Your task to perform on an android device: Open wifi settings Image 0: 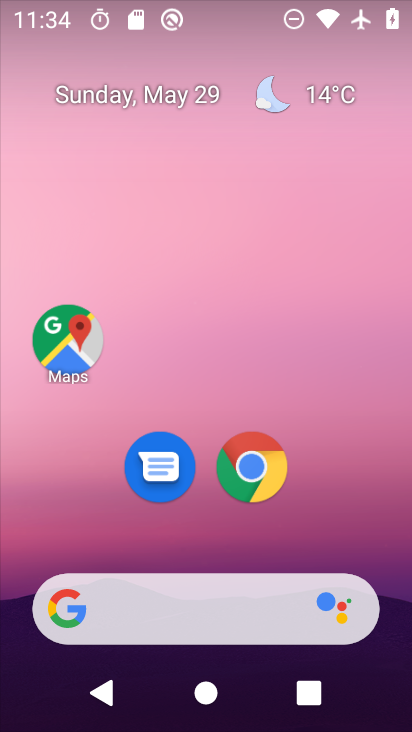
Step 0: drag from (227, 552) to (227, 158)
Your task to perform on an android device: Open wifi settings Image 1: 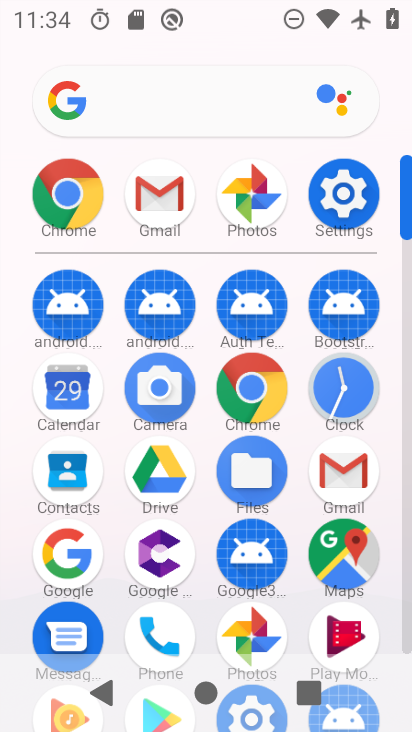
Step 1: click (357, 182)
Your task to perform on an android device: Open wifi settings Image 2: 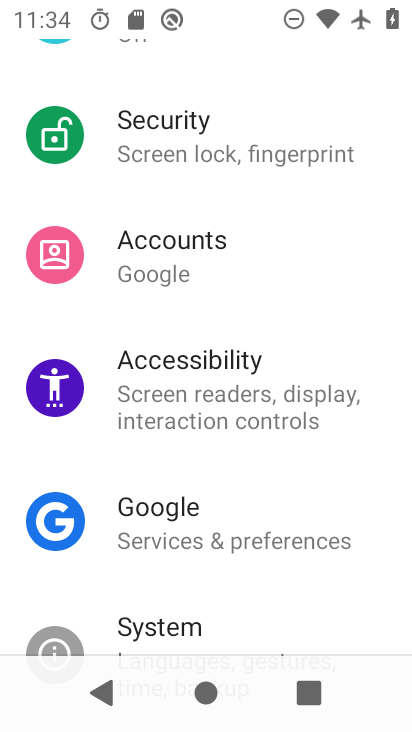
Step 2: drag from (226, 183) to (226, 416)
Your task to perform on an android device: Open wifi settings Image 3: 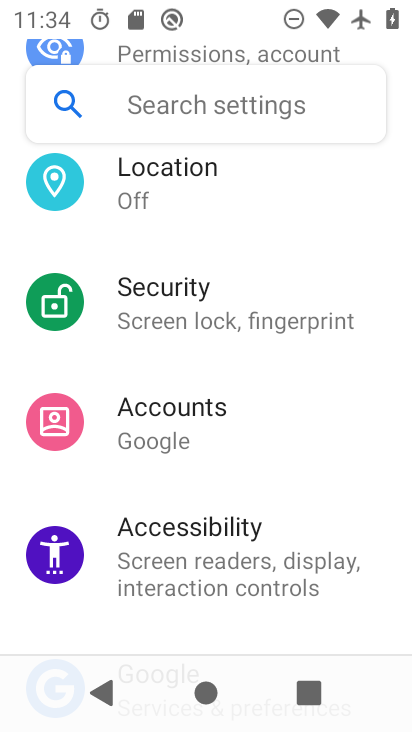
Step 3: drag from (229, 218) to (238, 505)
Your task to perform on an android device: Open wifi settings Image 4: 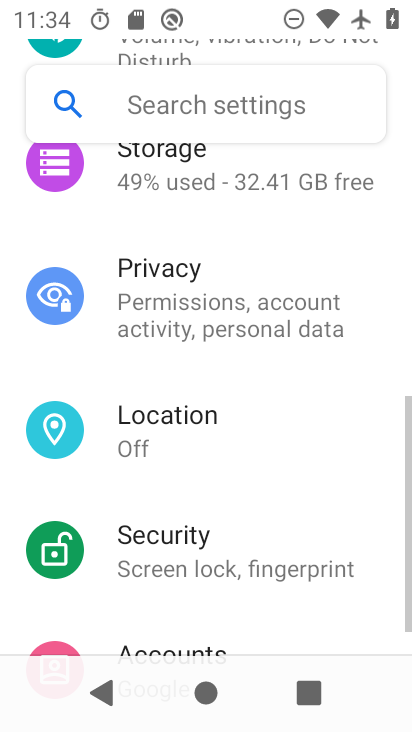
Step 4: drag from (228, 211) to (234, 459)
Your task to perform on an android device: Open wifi settings Image 5: 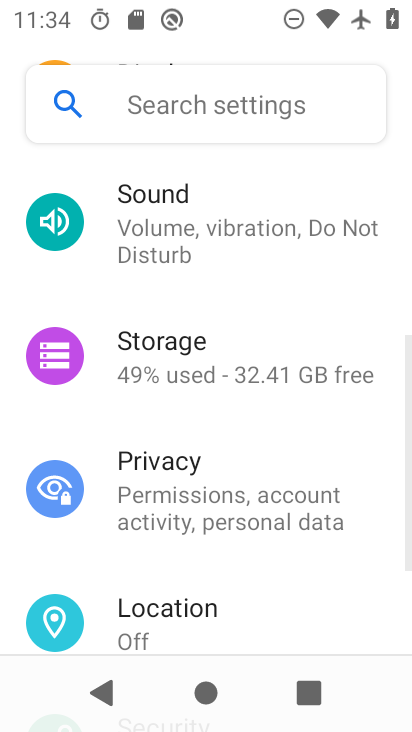
Step 5: drag from (225, 251) to (258, 504)
Your task to perform on an android device: Open wifi settings Image 6: 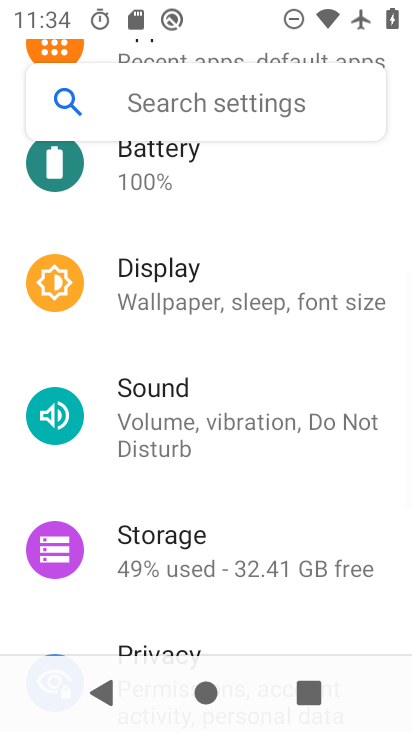
Step 6: drag from (257, 238) to (258, 461)
Your task to perform on an android device: Open wifi settings Image 7: 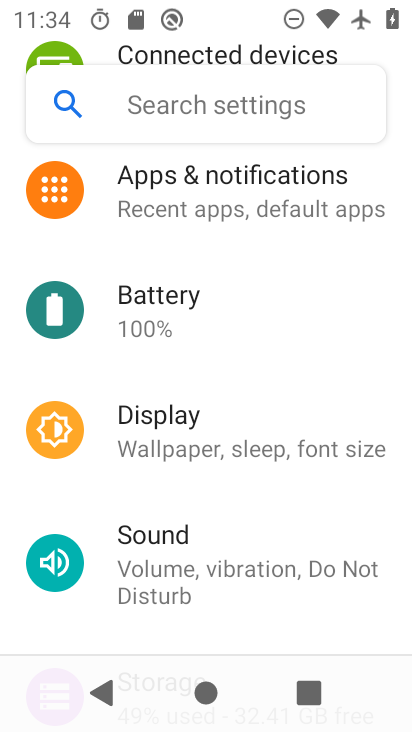
Step 7: drag from (239, 226) to (234, 472)
Your task to perform on an android device: Open wifi settings Image 8: 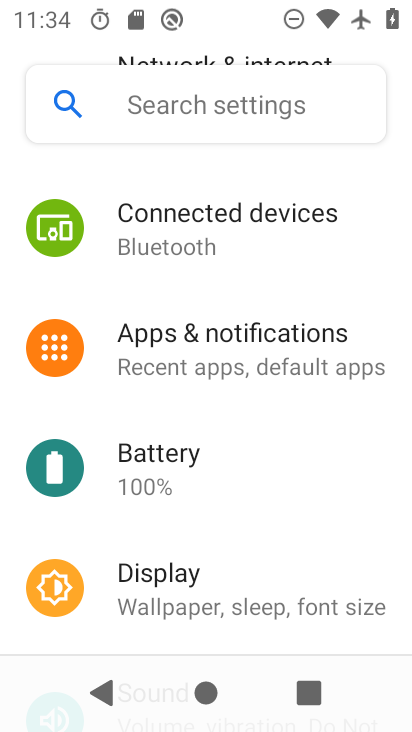
Step 8: drag from (182, 188) to (203, 481)
Your task to perform on an android device: Open wifi settings Image 9: 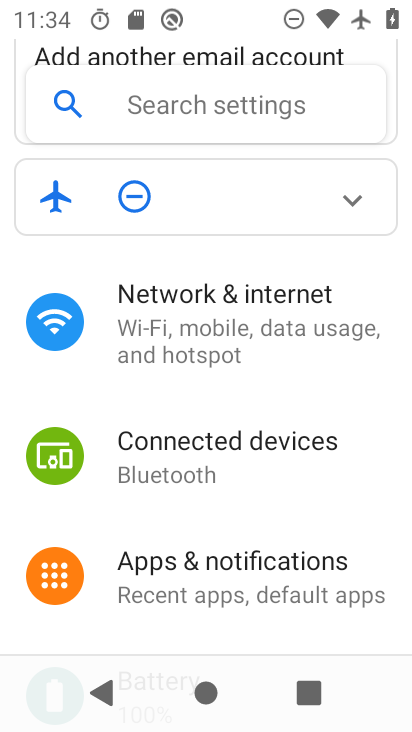
Step 9: click (208, 315)
Your task to perform on an android device: Open wifi settings Image 10: 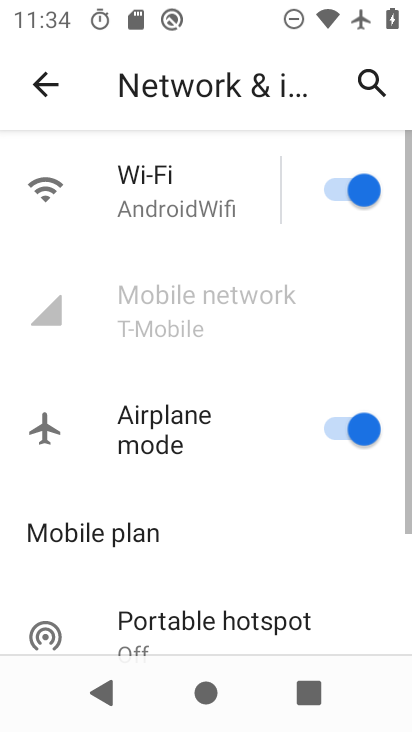
Step 10: click (174, 188)
Your task to perform on an android device: Open wifi settings Image 11: 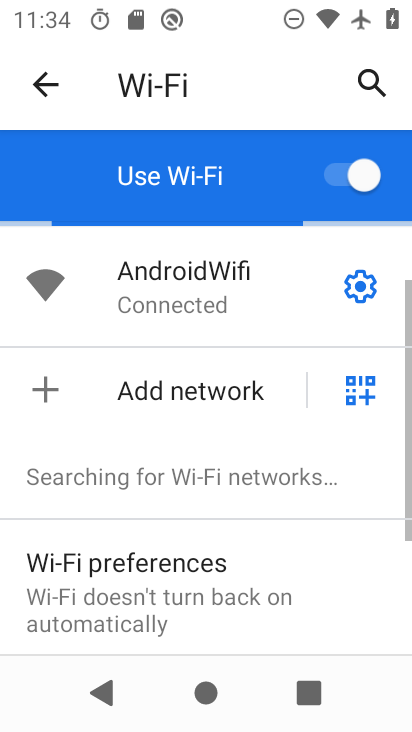
Step 11: task complete